Your task to perform on an android device: toggle sleep mode Image 0: 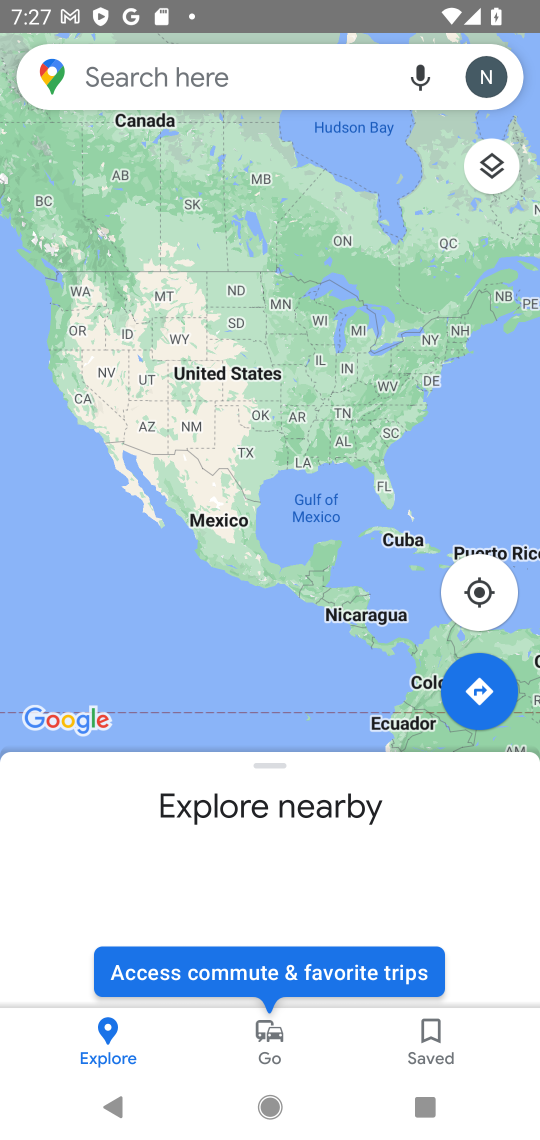
Step 0: press home button
Your task to perform on an android device: toggle sleep mode Image 1: 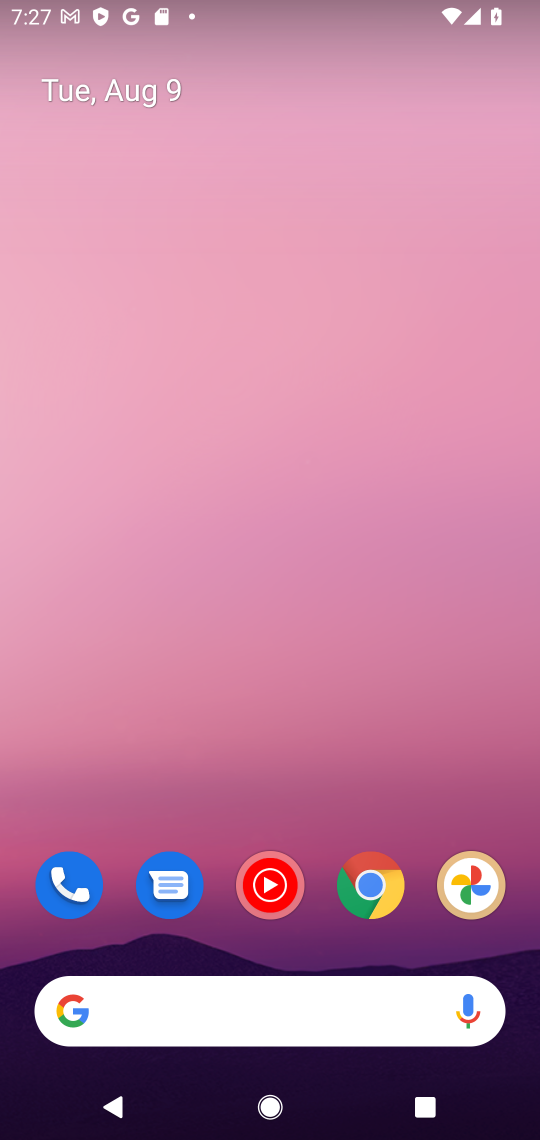
Step 1: drag from (292, 748) to (193, 242)
Your task to perform on an android device: toggle sleep mode Image 2: 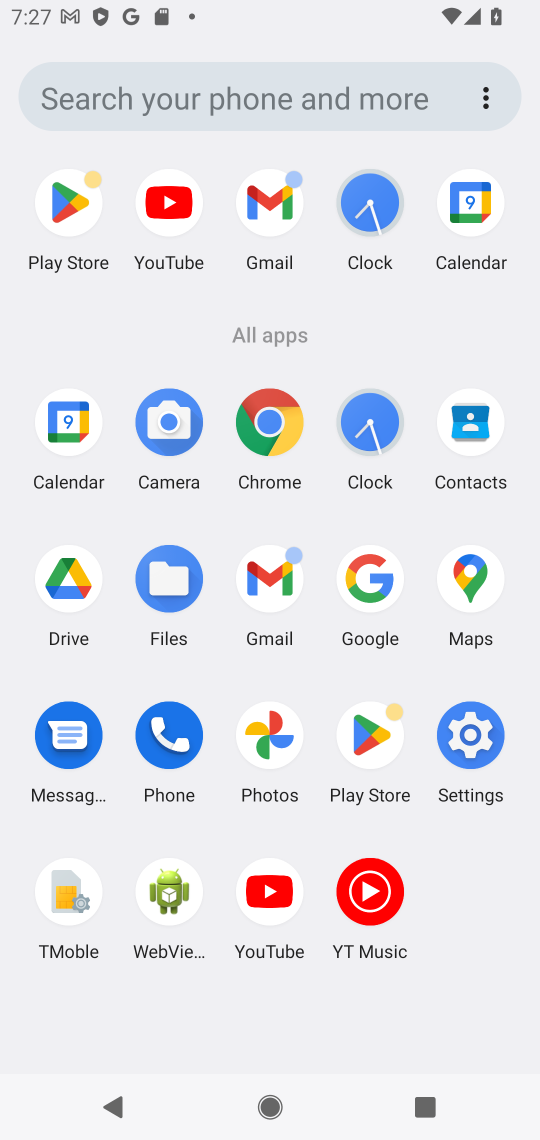
Step 2: click (488, 738)
Your task to perform on an android device: toggle sleep mode Image 3: 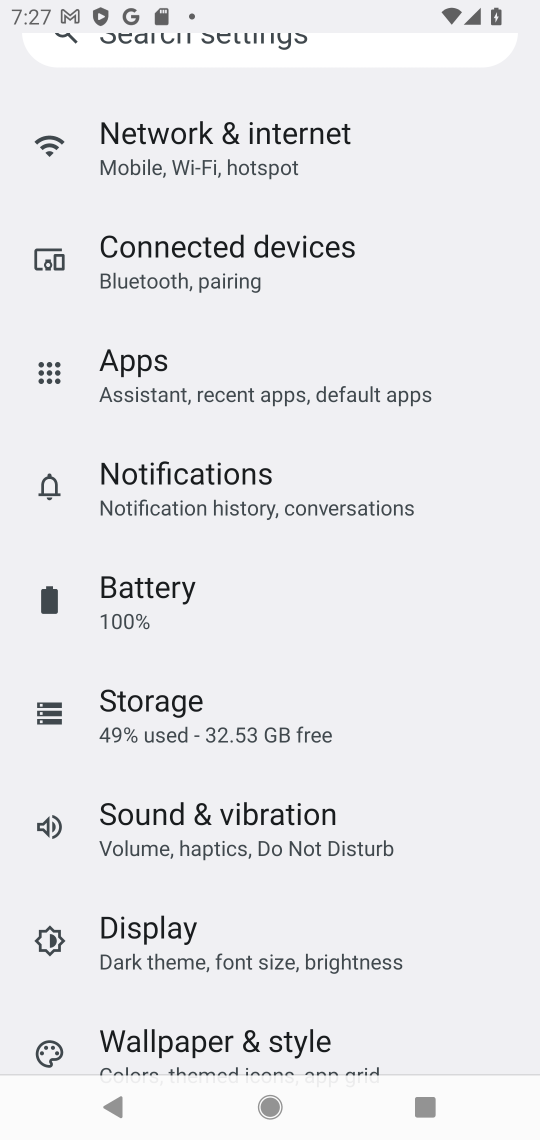
Step 3: task complete